Your task to perform on an android device: Open Amazon Image 0: 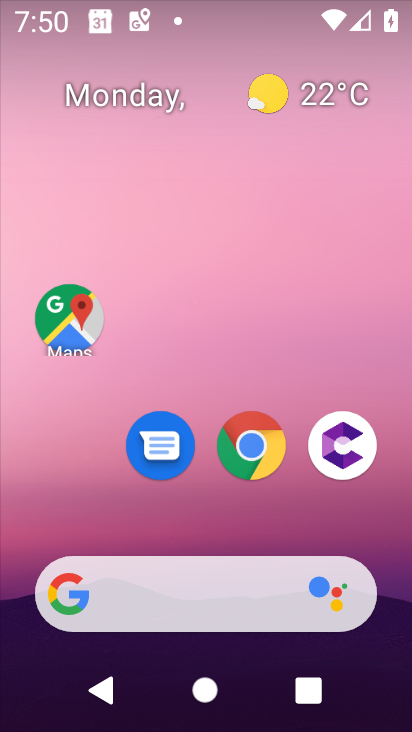
Step 0: click (56, 607)
Your task to perform on an android device: Open Amazon Image 1: 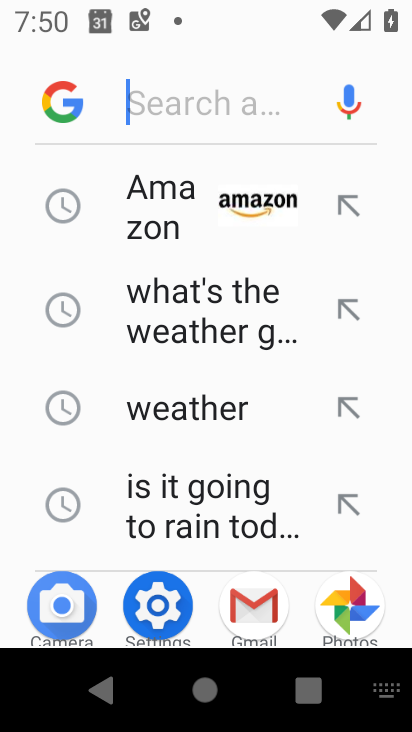
Step 1: click (184, 213)
Your task to perform on an android device: Open Amazon Image 2: 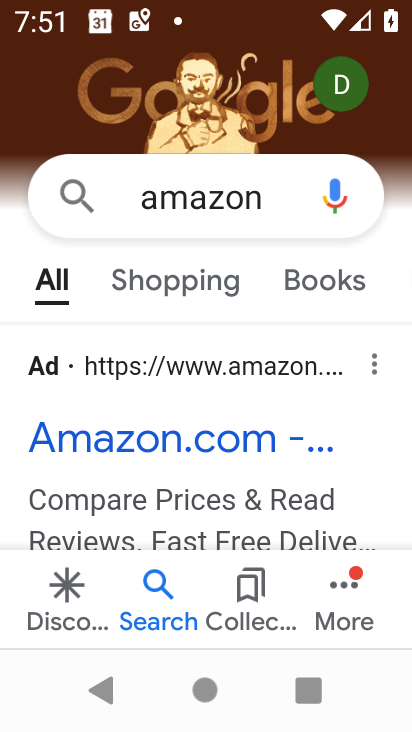
Step 2: click (170, 452)
Your task to perform on an android device: Open Amazon Image 3: 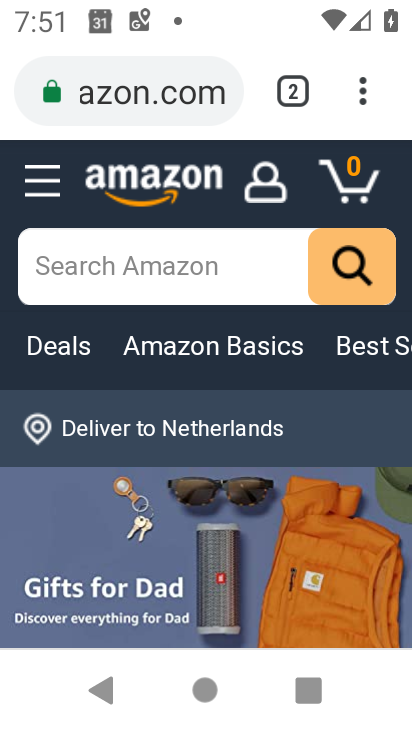
Step 3: task complete